Your task to perform on an android device: turn pop-ups on in chrome Image 0: 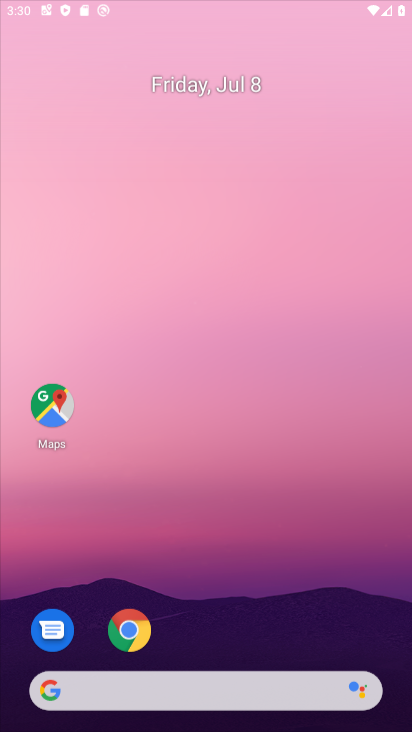
Step 0: click (272, 216)
Your task to perform on an android device: turn pop-ups on in chrome Image 1: 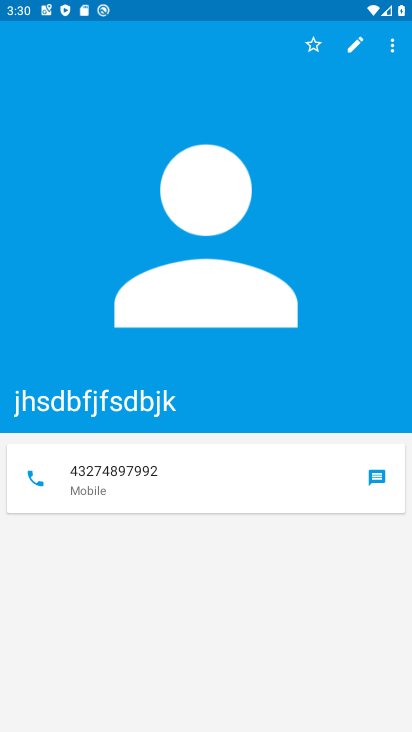
Step 1: press home button
Your task to perform on an android device: turn pop-ups on in chrome Image 2: 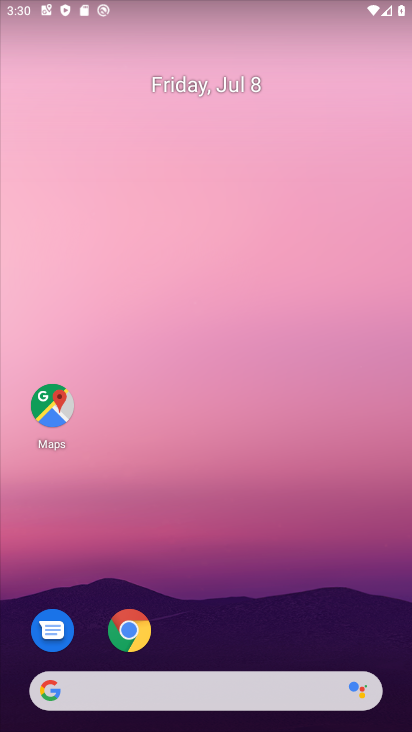
Step 2: click (151, 627)
Your task to perform on an android device: turn pop-ups on in chrome Image 3: 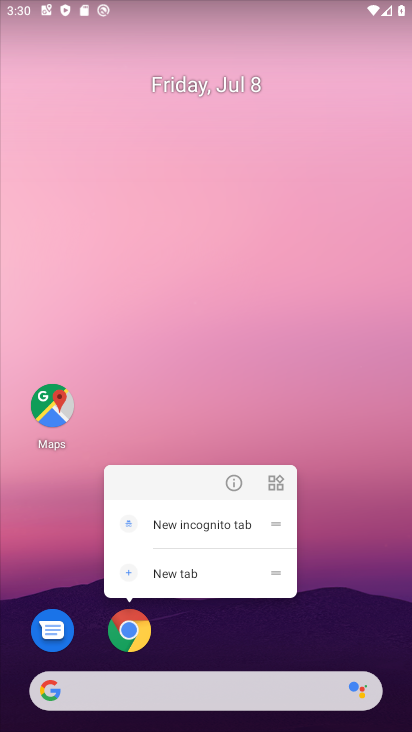
Step 3: click (131, 627)
Your task to perform on an android device: turn pop-ups on in chrome Image 4: 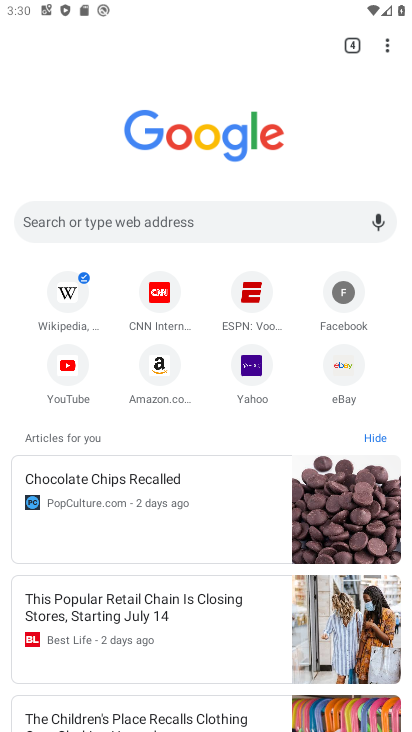
Step 4: click (389, 38)
Your task to perform on an android device: turn pop-ups on in chrome Image 5: 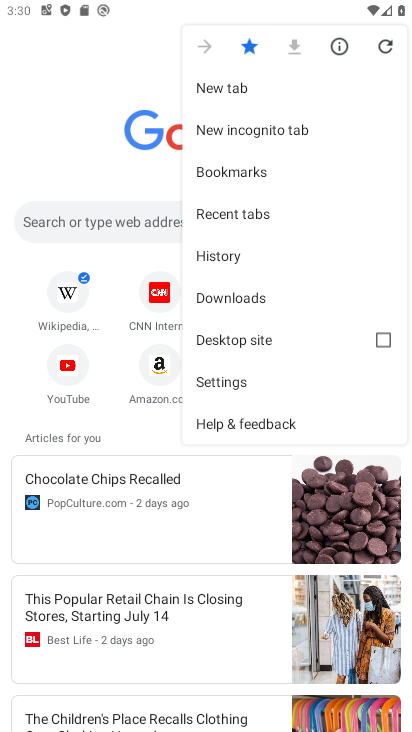
Step 5: click (268, 375)
Your task to perform on an android device: turn pop-ups on in chrome Image 6: 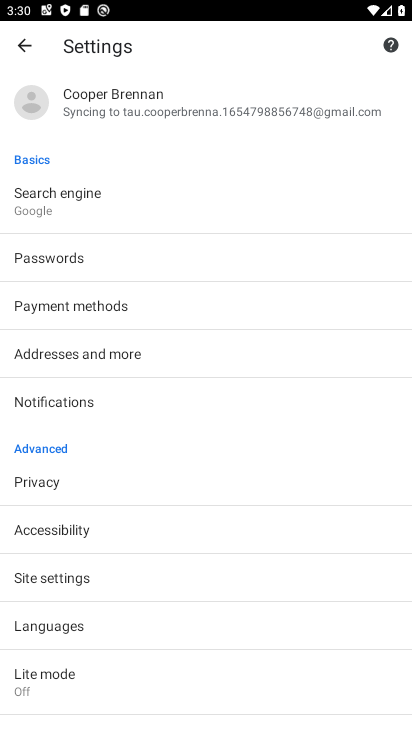
Step 6: click (168, 576)
Your task to perform on an android device: turn pop-ups on in chrome Image 7: 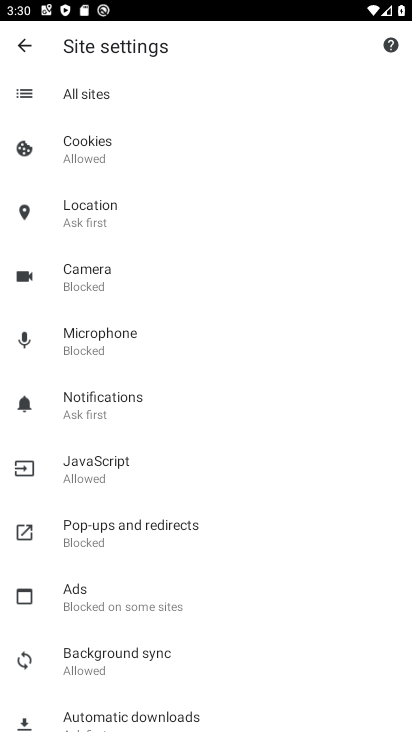
Step 7: click (181, 539)
Your task to perform on an android device: turn pop-ups on in chrome Image 8: 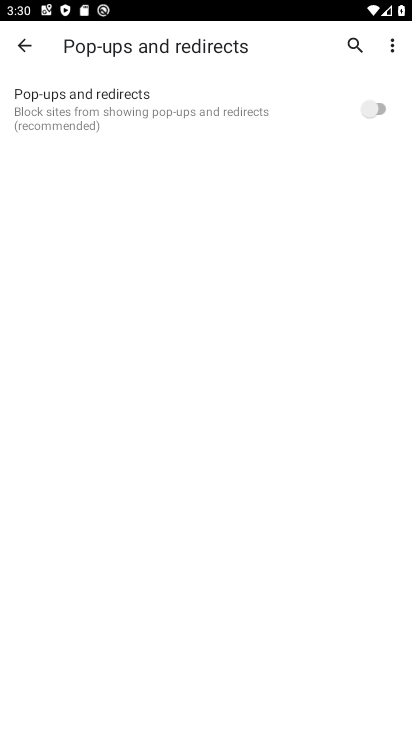
Step 8: click (352, 121)
Your task to perform on an android device: turn pop-ups on in chrome Image 9: 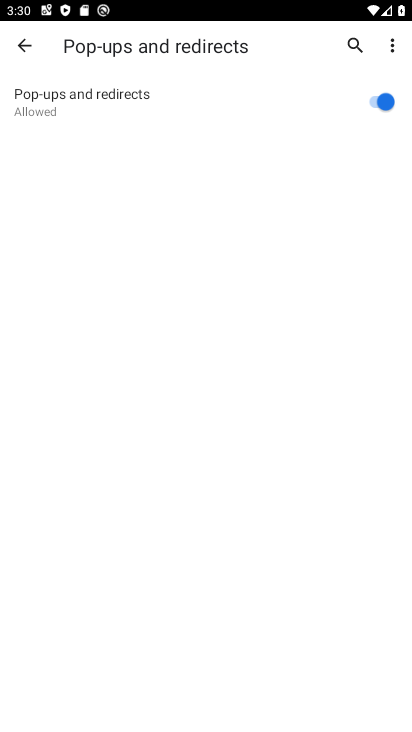
Step 9: task complete